Your task to perform on an android device: Open accessibility settings Image 0: 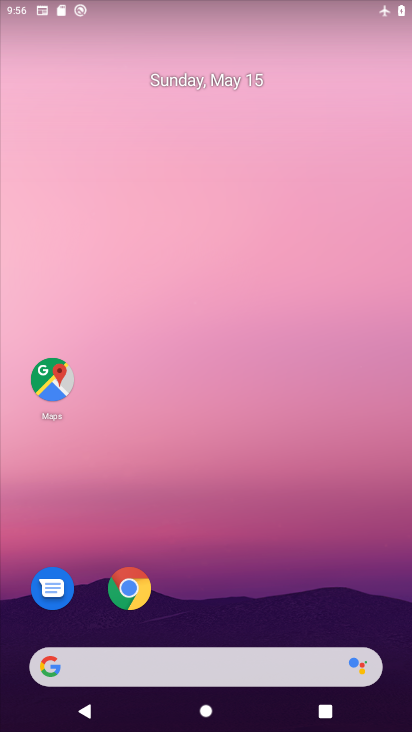
Step 0: click (258, 56)
Your task to perform on an android device: Open accessibility settings Image 1: 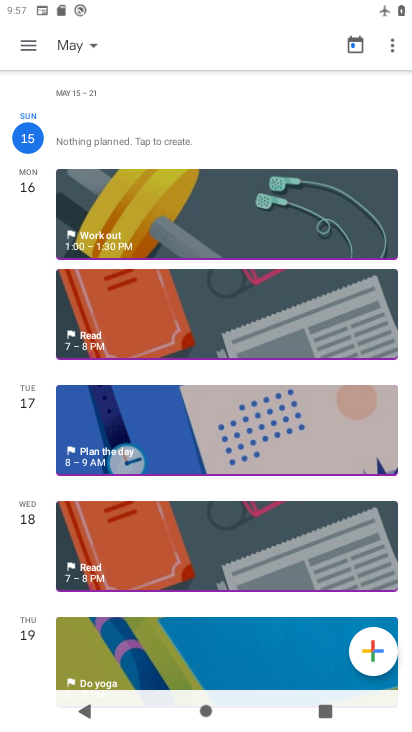
Step 1: press home button
Your task to perform on an android device: Open accessibility settings Image 2: 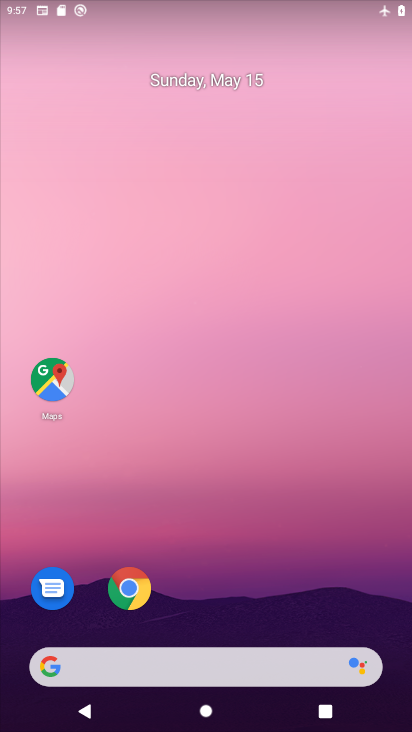
Step 2: click (210, 17)
Your task to perform on an android device: Open accessibility settings Image 3: 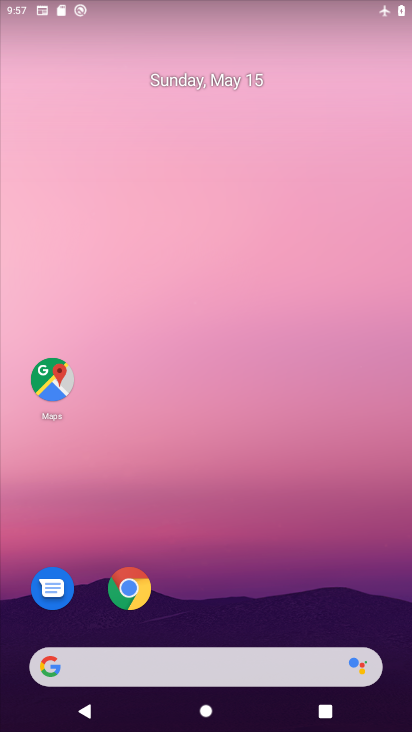
Step 3: drag from (268, 629) to (165, 43)
Your task to perform on an android device: Open accessibility settings Image 4: 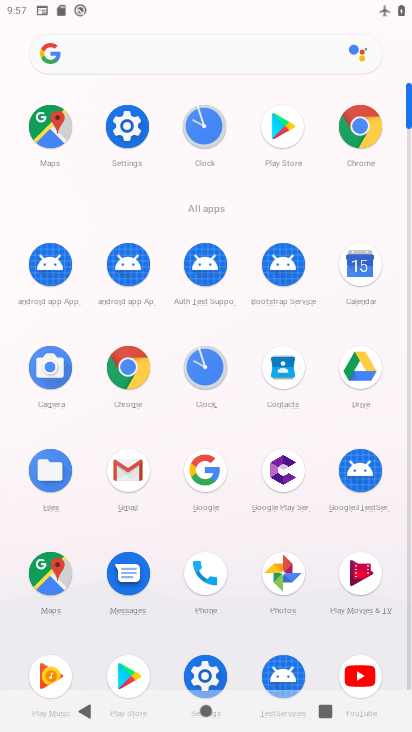
Step 4: click (211, 665)
Your task to perform on an android device: Open accessibility settings Image 5: 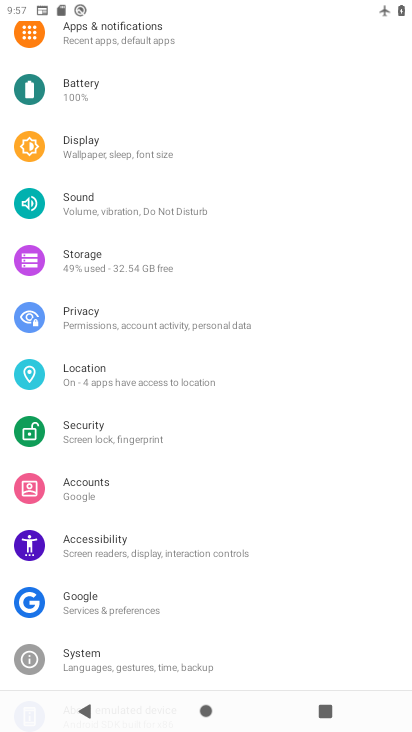
Step 5: drag from (209, 664) to (224, 193)
Your task to perform on an android device: Open accessibility settings Image 6: 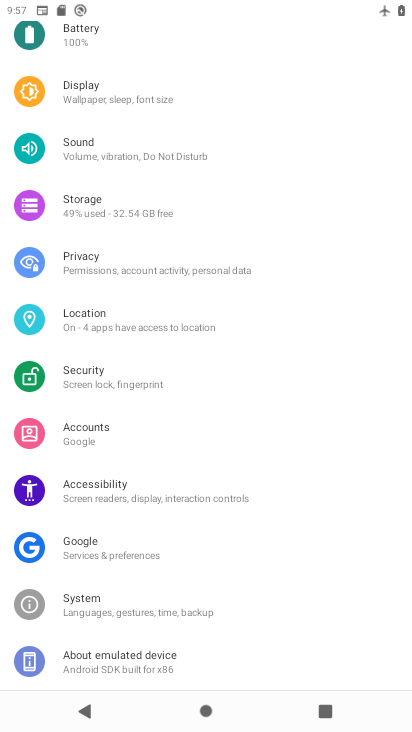
Step 6: click (172, 498)
Your task to perform on an android device: Open accessibility settings Image 7: 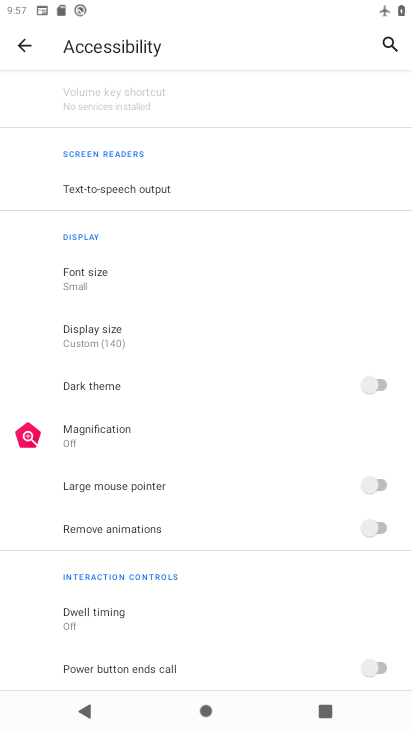
Step 7: task complete